Your task to perform on an android device: Open Reddit.com Image 0: 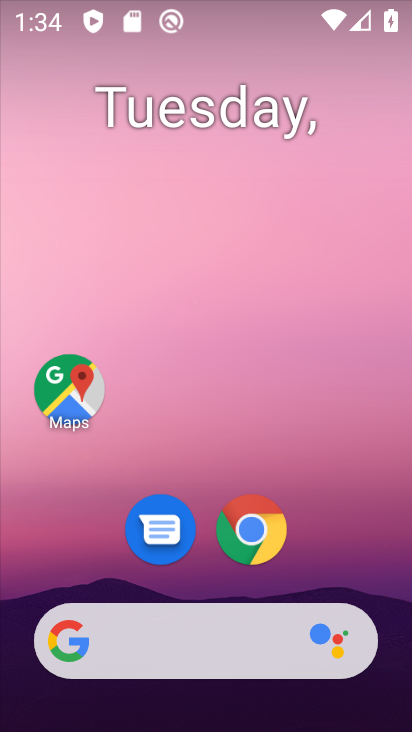
Step 0: drag from (399, 636) to (260, 48)
Your task to perform on an android device: Open Reddit.com Image 1: 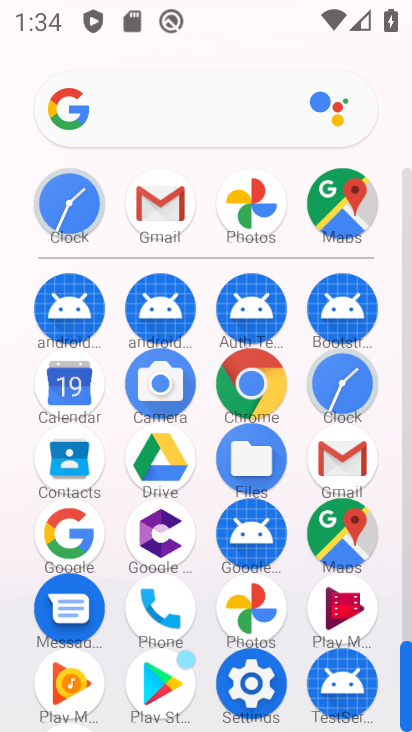
Step 1: click (253, 396)
Your task to perform on an android device: Open Reddit.com Image 2: 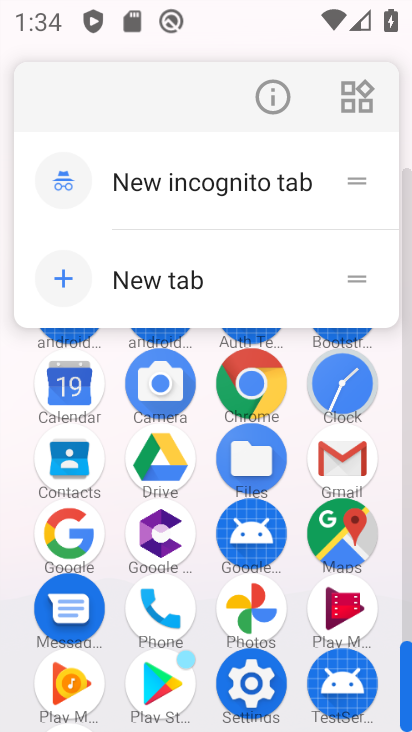
Step 2: click (253, 391)
Your task to perform on an android device: Open Reddit.com Image 3: 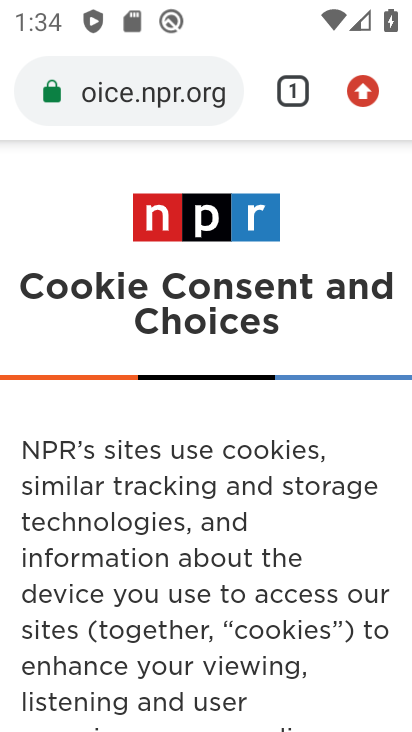
Step 3: press back button
Your task to perform on an android device: Open Reddit.com Image 4: 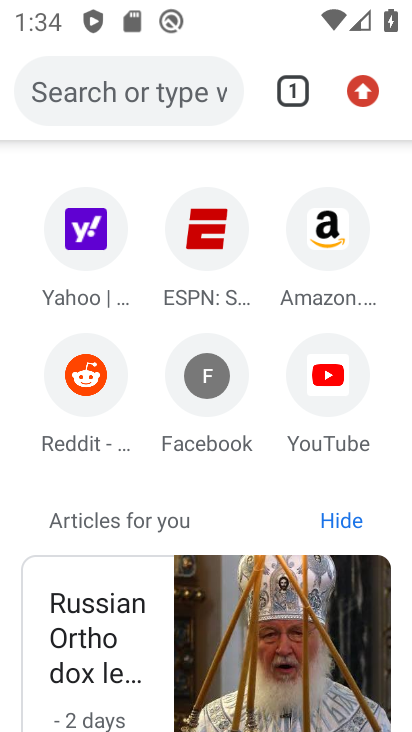
Step 4: click (105, 110)
Your task to perform on an android device: Open Reddit.com Image 5: 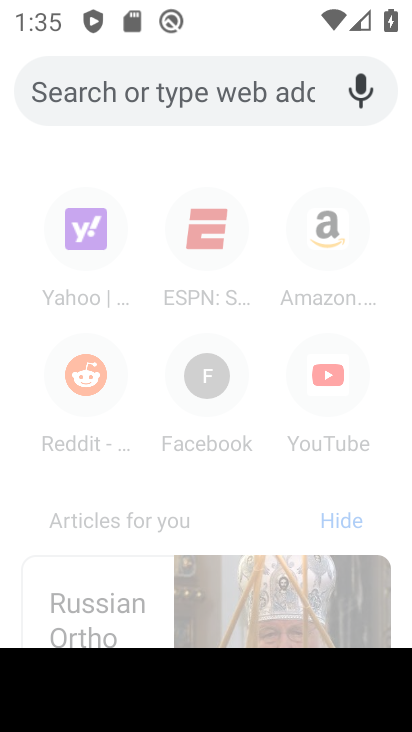
Step 5: type "reddit.com"
Your task to perform on an android device: Open Reddit.com Image 6: 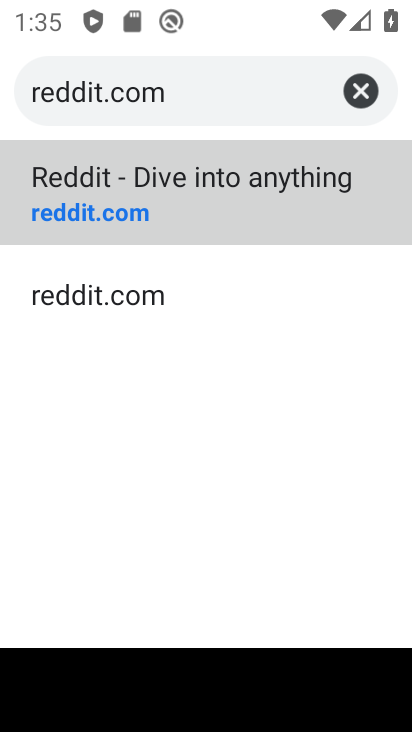
Step 6: click (214, 211)
Your task to perform on an android device: Open Reddit.com Image 7: 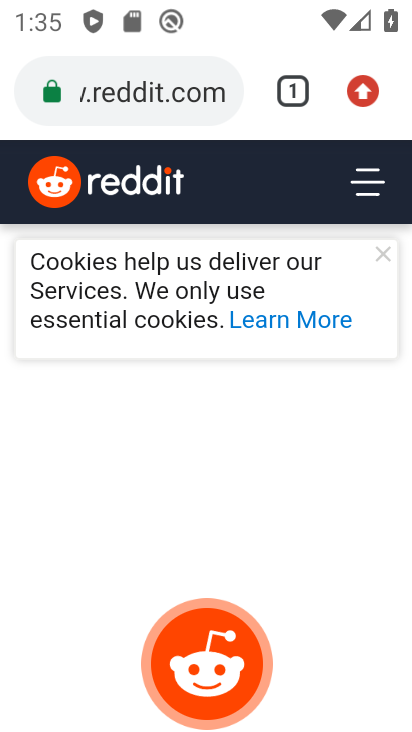
Step 7: task complete